Your task to perform on an android device: open app "Duolingo: language lessons" (install if not already installed) and go to login screen Image 0: 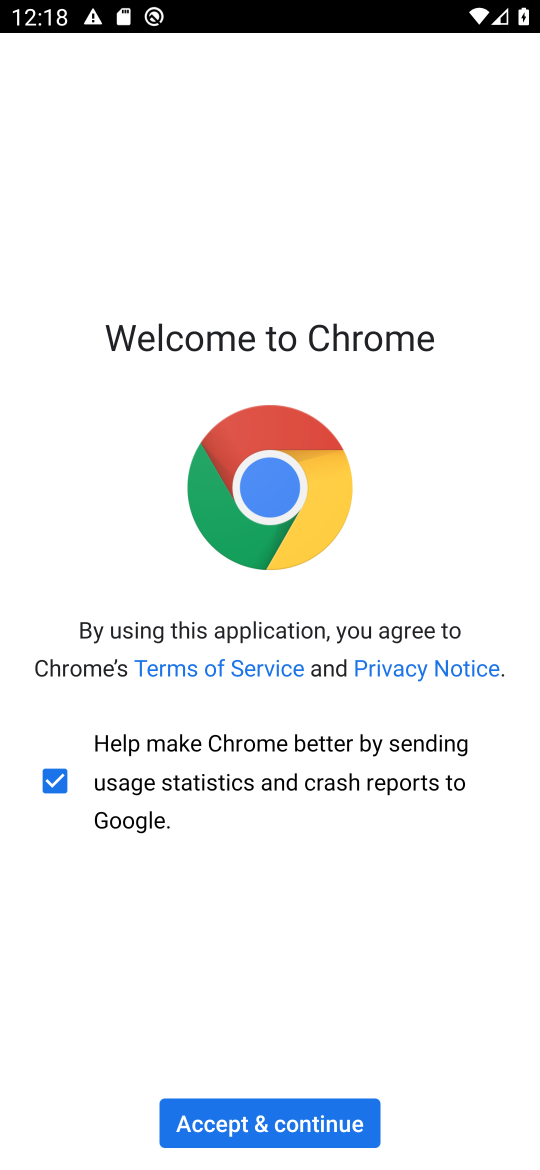
Step 0: press home button
Your task to perform on an android device: open app "Duolingo: language lessons" (install if not already installed) and go to login screen Image 1: 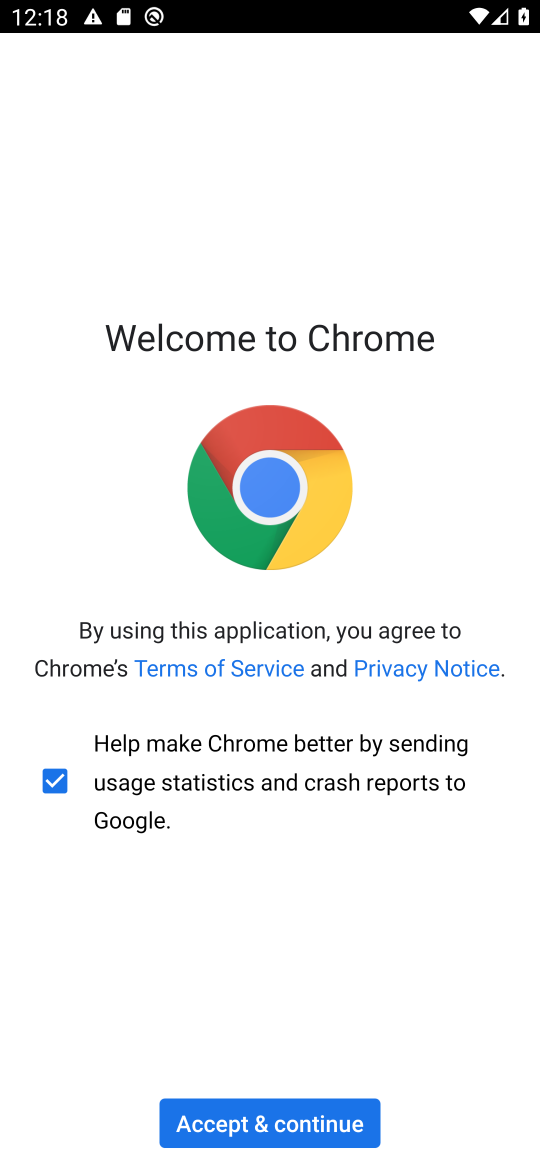
Step 1: press home button
Your task to perform on an android device: open app "Duolingo: language lessons" (install if not already installed) and go to login screen Image 2: 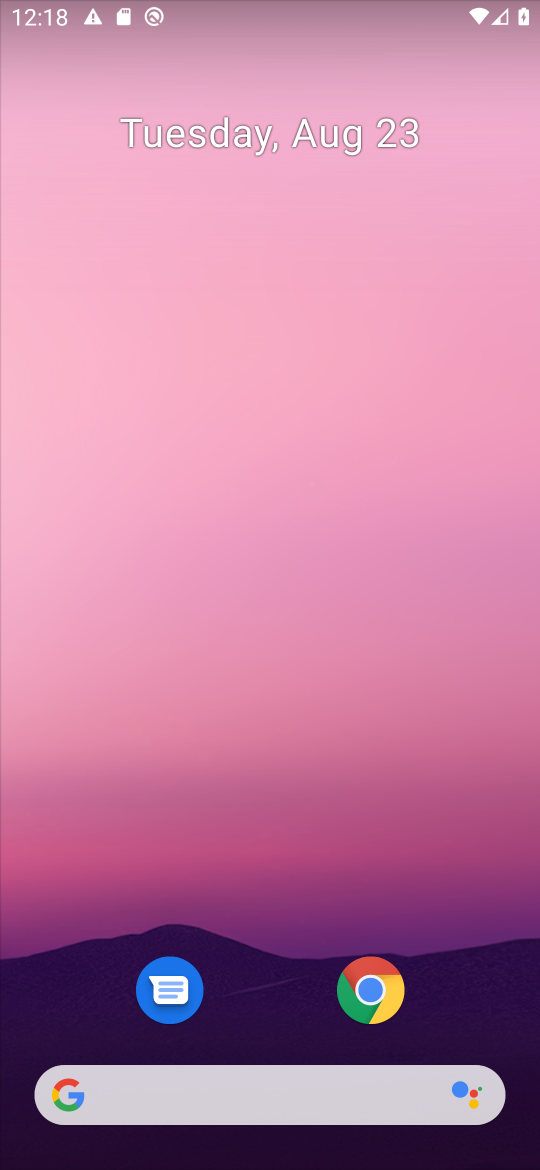
Step 2: drag from (267, 962) to (299, 334)
Your task to perform on an android device: open app "Duolingo: language lessons" (install if not already installed) and go to login screen Image 3: 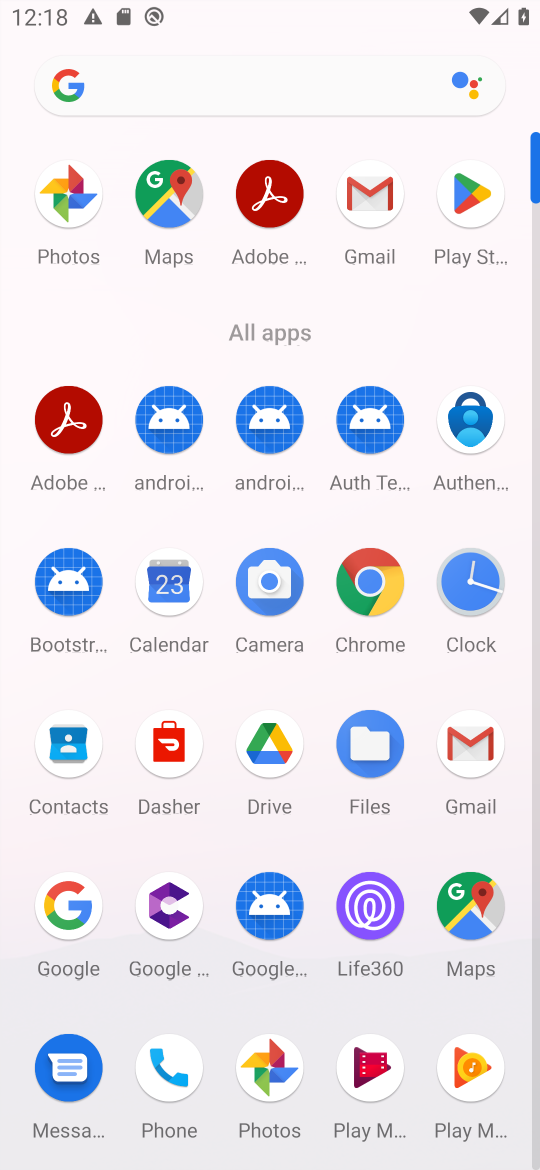
Step 3: click (471, 215)
Your task to perform on an android device: open app "Duolingo: language lessons" (install if not already installed) and go to login screen Image 4: 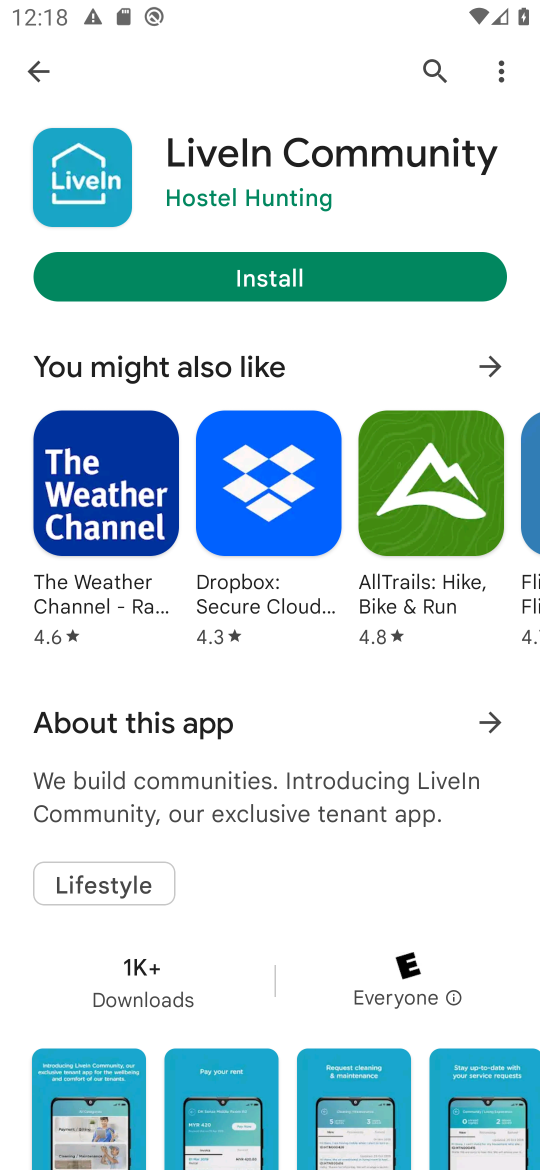
Step 4: click (32, 64)
Your task to perform on an android device: open app "Duolingo: language lessons" (install if not already installed) and go to login screen Image 5: 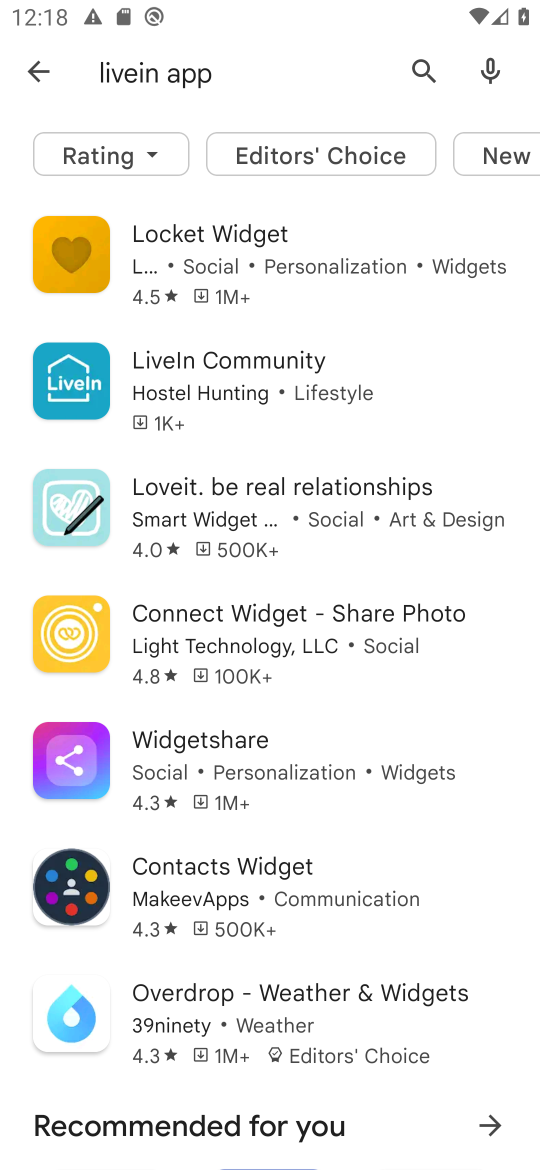
Step 5: click (45, 71)
Your task to perform on an android device: open app "Duolingo: language lessons" (install if not already installed) and go to login screen Image 6: 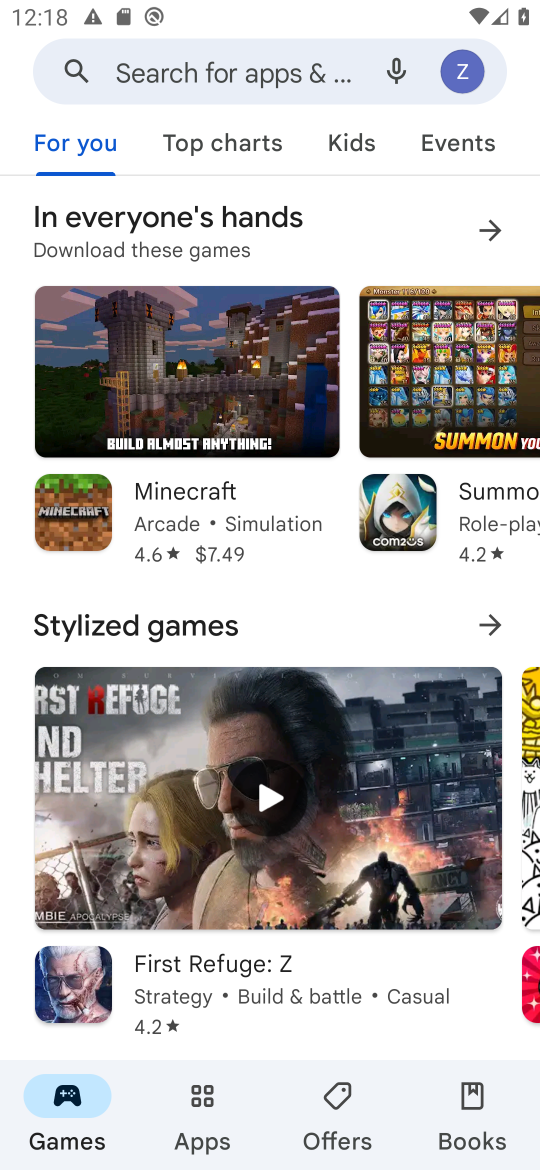
Step 6: click (209, 64)
Your task to perform on an android device: open app "Duolingo: language lessons" (install if not already installed) and go to login screen Image 7: 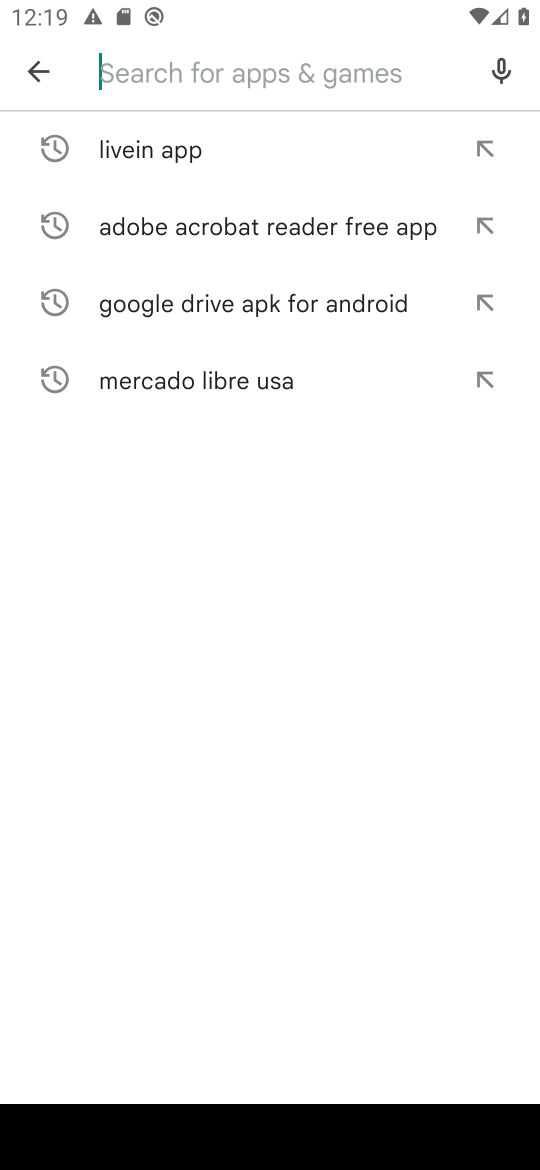
Step 7: type "Duolingo: language lessons "
Your task to perform on an android device: open app "Duolingo: language lessons" (install if not already installed) and go to login screen Image 8: 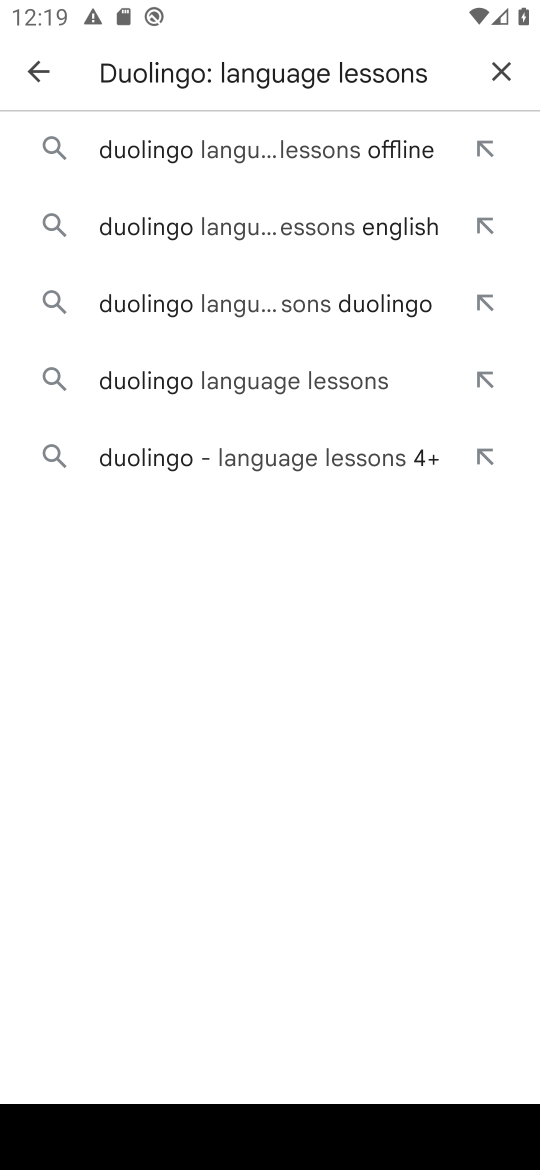
Step 8: click (184, 146)
Your task to perform on an android device: open app "Duolingo: language lessons" (install if not already installed) and go to login screen Image 9: 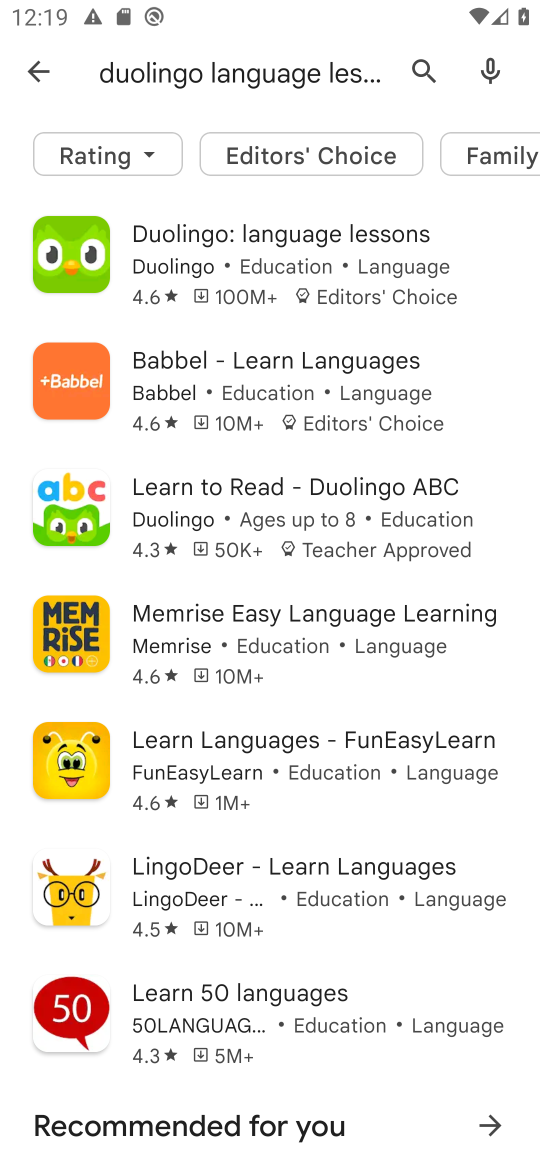
Step 9: click (272, 252)
Your task to perform on an android device: open app "Duolingo: language lessons" (install if not already installed) and go to login screen Image 10: 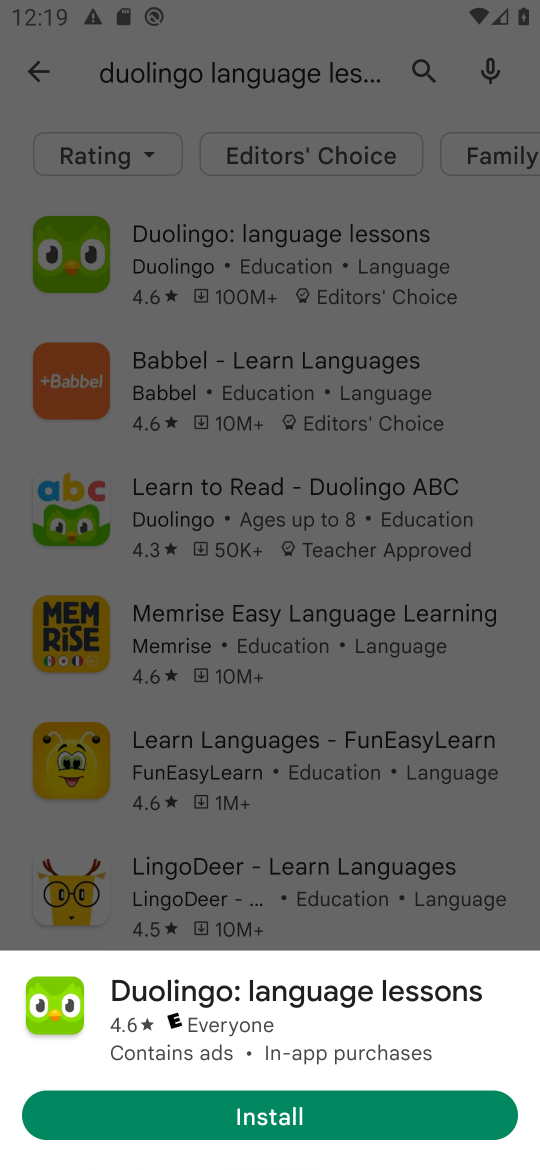
Step 10: click (348, 1118)
Your task to perform on an android device: open app "Duolingo: language lessons" (install if not already installed) and go to login screen Image 11: 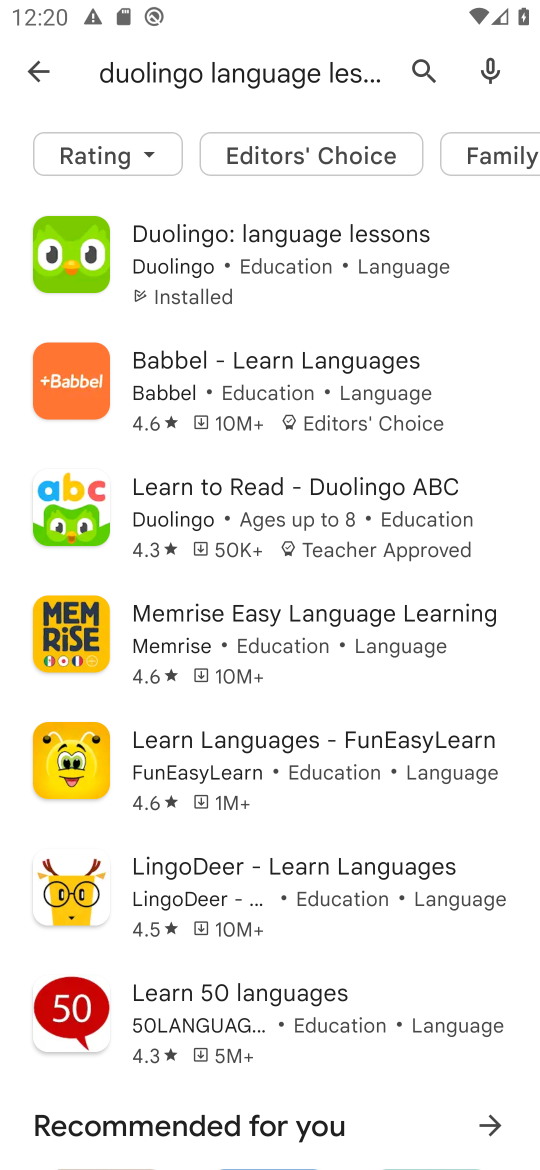
Step 11: click (335, 259)
Your task to perform on an android device: open app "Duolingo: language lessons" (install if not already installed) and go to login screen Image 12: 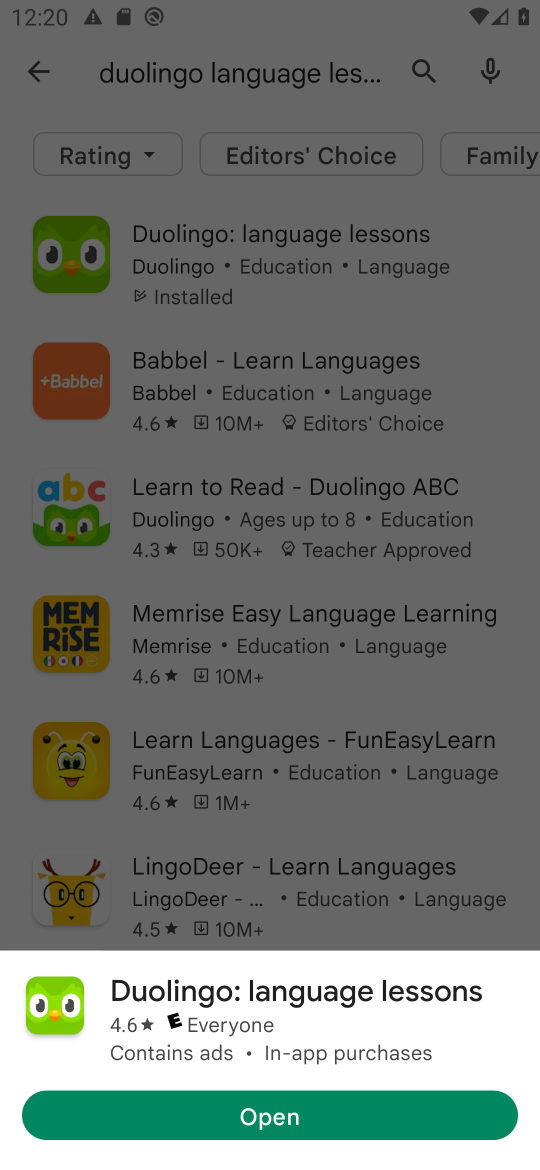
Step 12: click (313, 1112)
Your task to perform on an android device: open app "Duolingo: language lessons" (install if not already installed) and go to login screen Image 13: 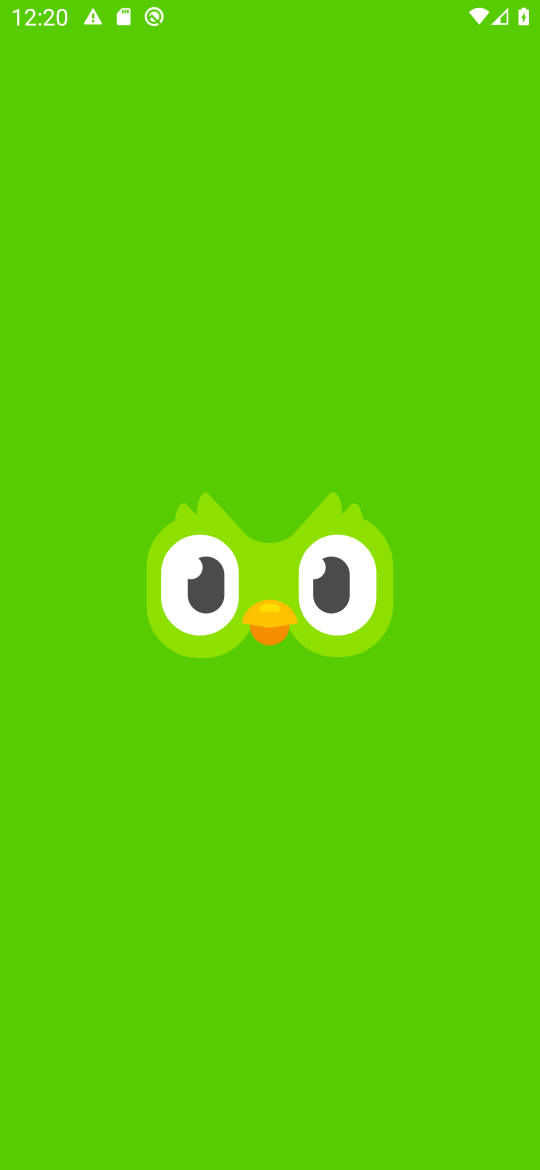
Step 13: task complete